Your task to perform on an android device: turn off notifications settings in the gmail app Image 0: 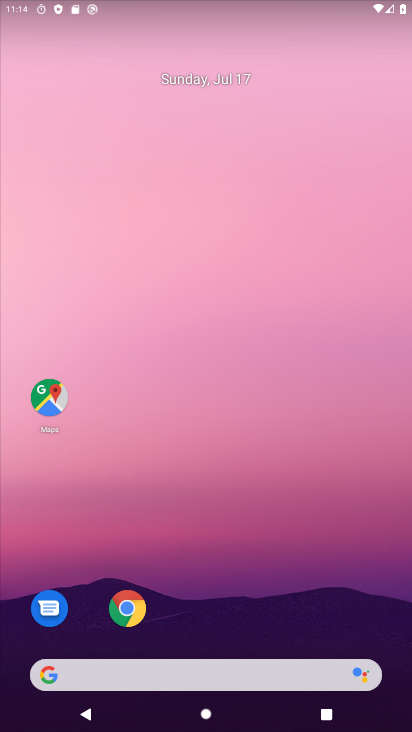
Step 0: drag from (291, 579) to (315, 134)
Your task to perform on an android device: turn off notifications settings in the gmail app Image 1: 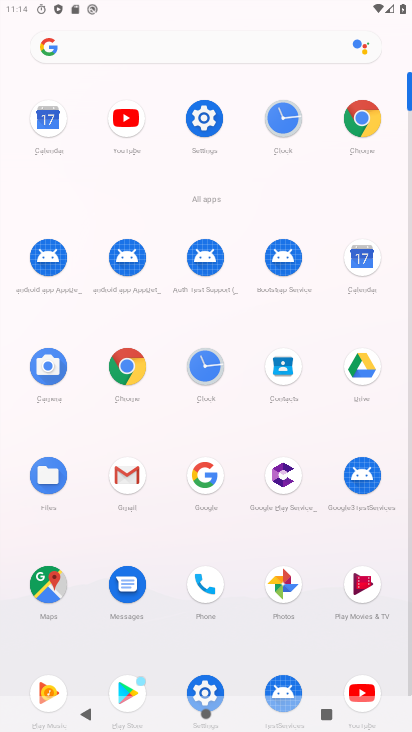
Step 1: click (119, 480)
Your task to perform on an android device: turn off notifications settings in the gmail app Image 2: 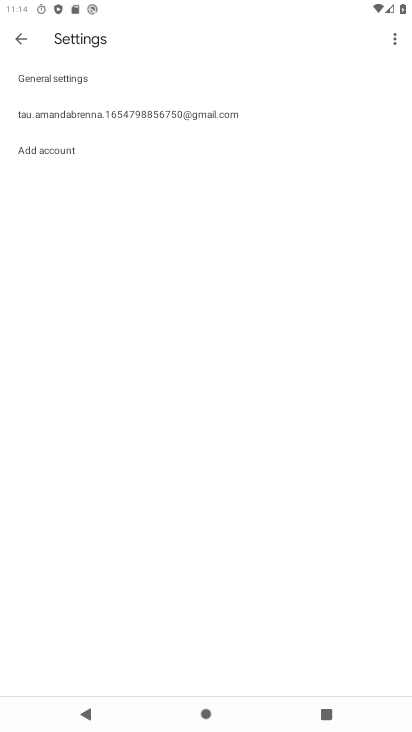
Step 2: click (86, 113)
Your task to perform on an android device: turn off notifications settings in the gmail app Image 3: 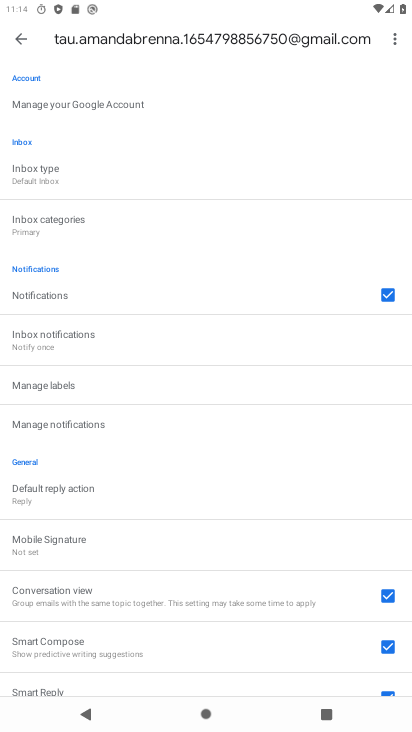
Step 3: click (82, 426)
Your task to perform on an android device: turn off notifications settings in the gmail app Image 4: 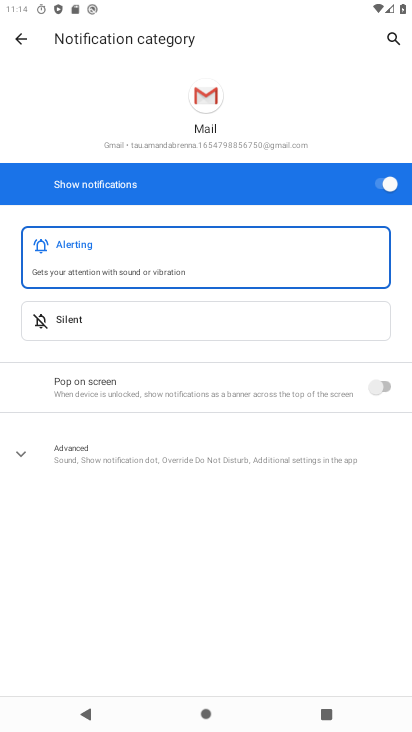
Step 4: click (379, 179)
Your task to perform on an android device: turn off notifications settings in the gmail app Image 5: 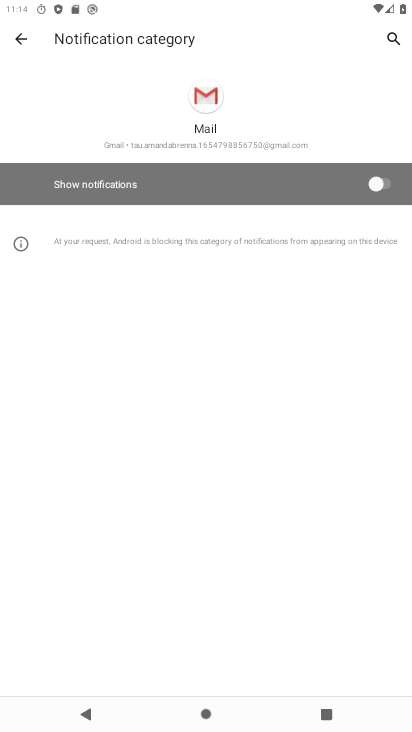
Step 5: task complete